Your task to perform on an android device: manage bookmarks in the chrome app Image 0: 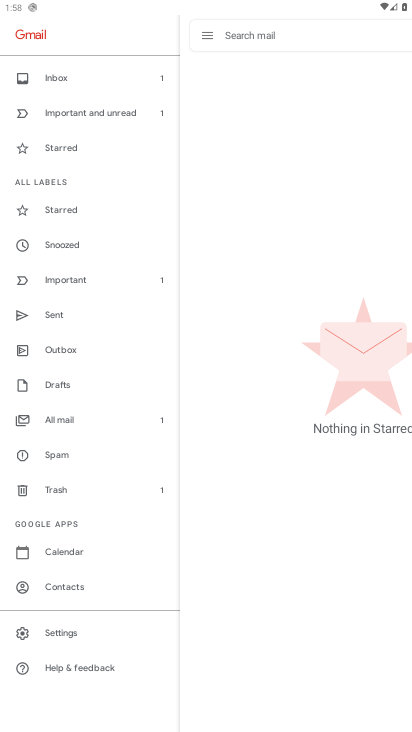
Step 0: drag from (30, 699) to (167, 379)
Your task to perform on an android device: manage bookmarks in the chrome app Image 1: 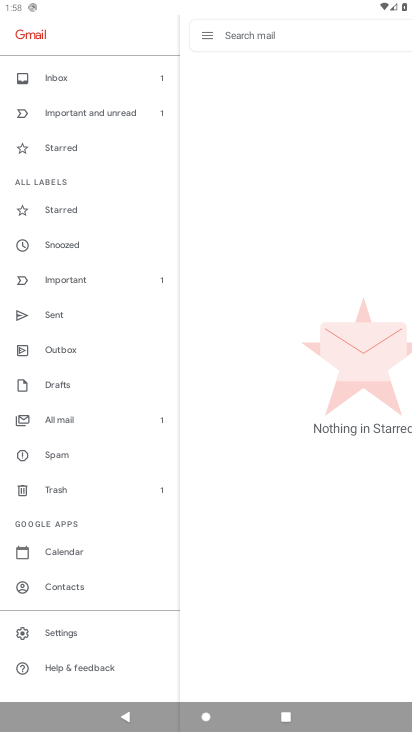
Step 1: press home button
Your task to perform on an android device: manage bookmarks in the chrome app Image 2: 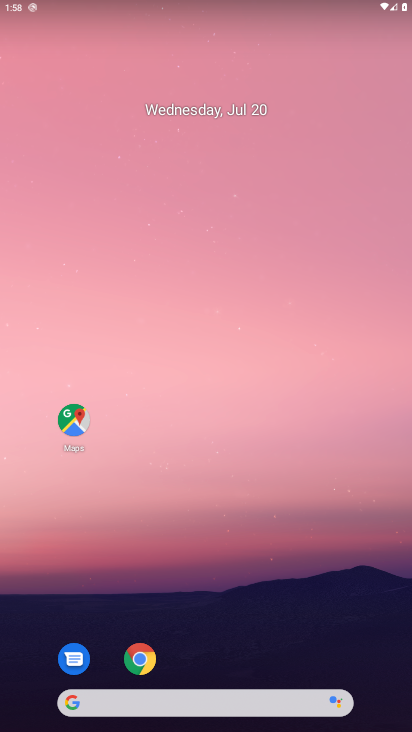
Step 2: click (139, 662)
Your task to perform on an android device: manage bookmarks in the chrome app Image 3: 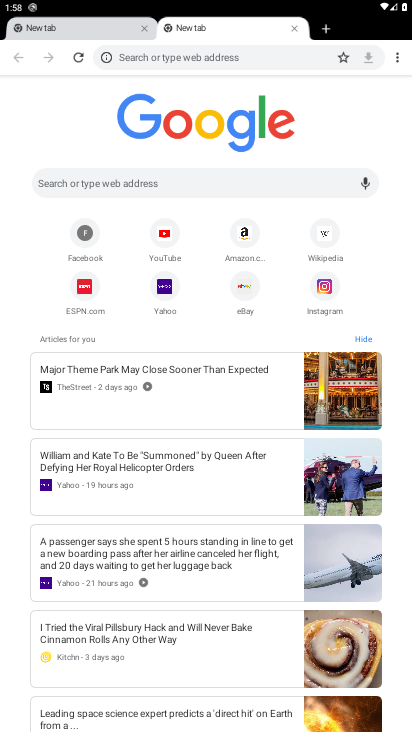
Step 3: click (402, 56)
Your task to perform on an android device: manage bookmarks in the chrome app Image 4: 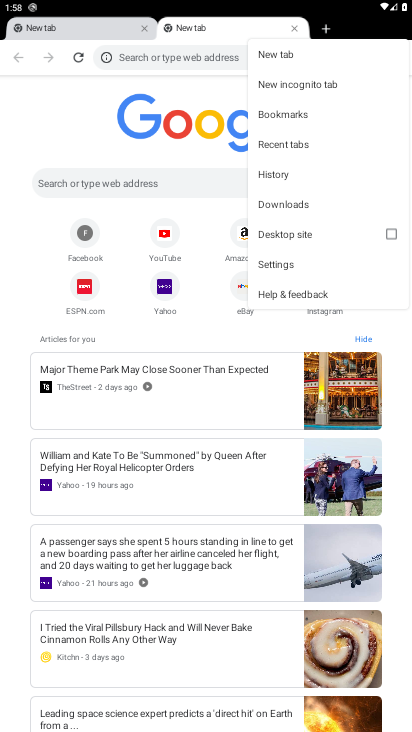
Step 4: click (282, 116)
Your task to perform on an android device: manage bookmarks in the chrome app Image 5: 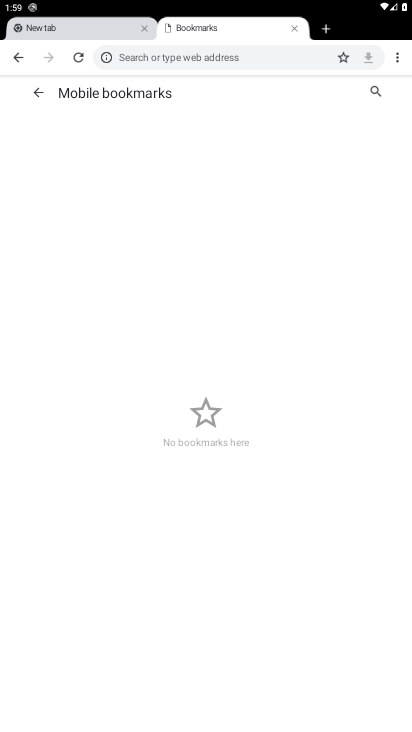
Step 5: task complete